Your task to perform on an android device: check google app version Image 0: 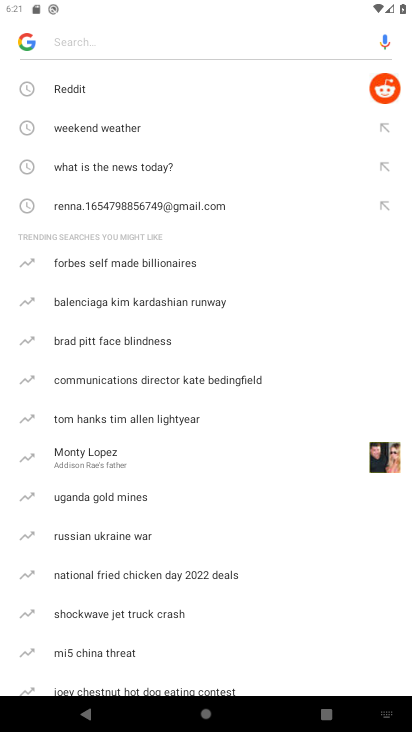
Step 0: press home button
Your task to perform on an android device: check google app version Image 1: 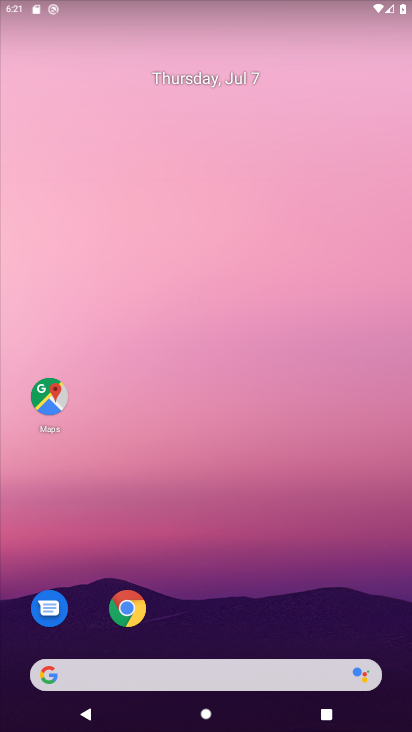
Step 1: drag from (193, 558) to (227, 191)
Your task to perform on an android device: check google app version Image 2: 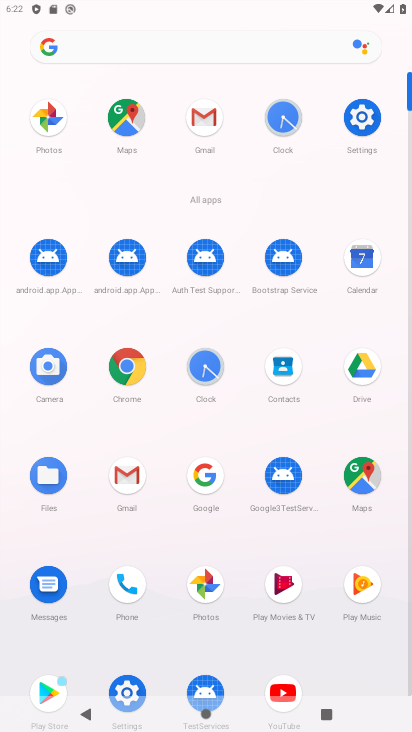
Step 2: click (208, 482)
Your task to perform on an android device: check google app version Image 3: 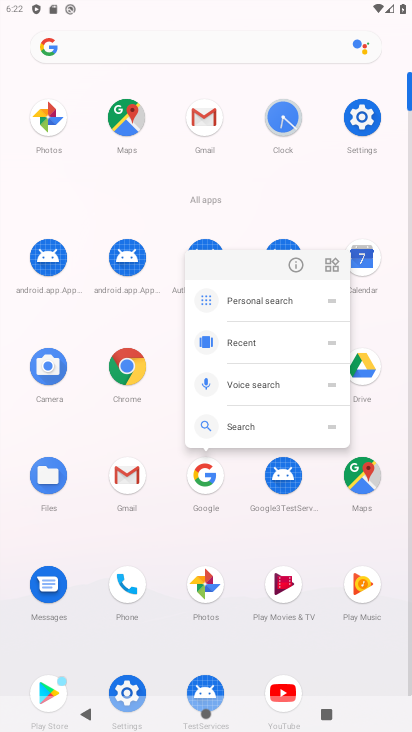
Step 3: click (292, 260)
Your task to perform on an android device: check google app version Image 4: 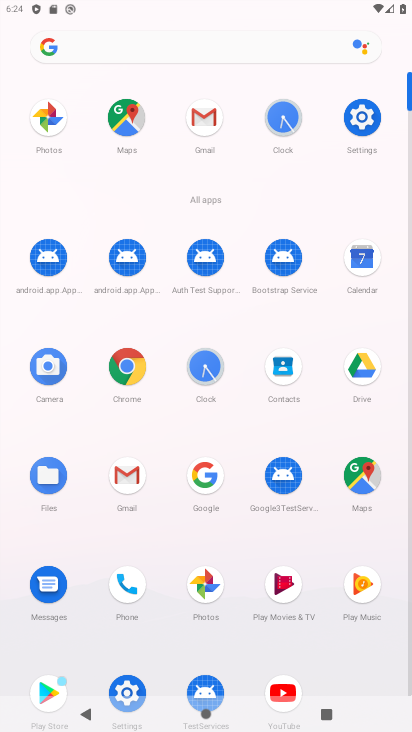
Step 4: click (209, 467)
Your task to perform on an android device: check google app version Image 5: 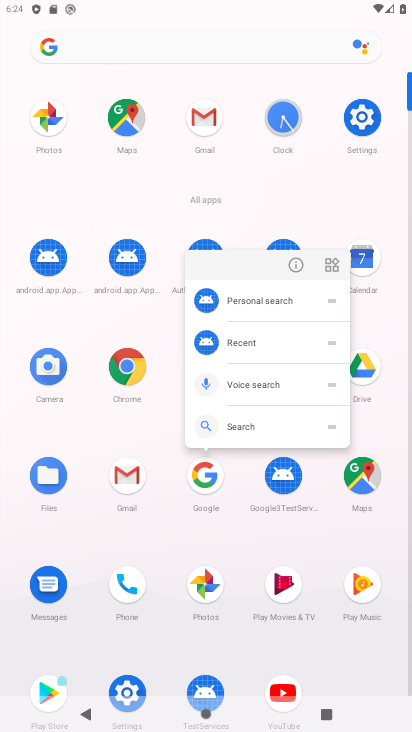
Step 5: click (290, 277)
Your task to perform on an android device: check google app version Image 6: 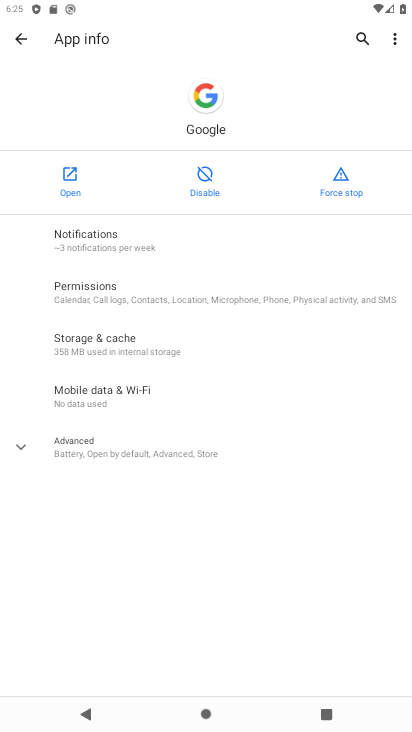
Step 6: click (81, 448)
Your task to perform on an android device: check google app version Image 7: 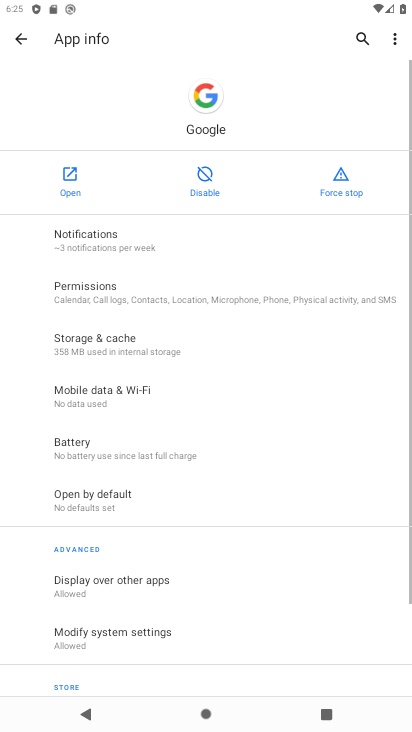
Step 7: task complete